Your task to perform on an android device: empty trash in google photos Image 0: 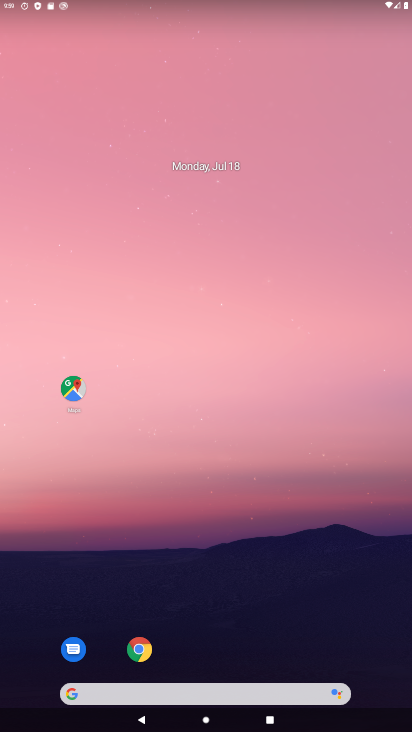
Step 0: drag from (52, 589) to (224, 180)
Your task to perform on an android device: empty trash in google photos Image 1: 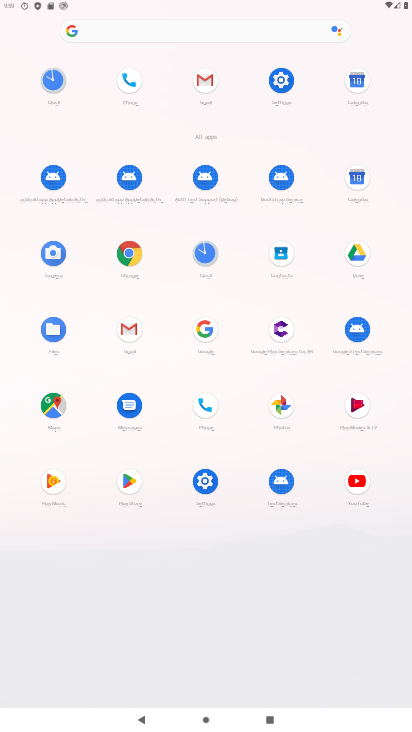
Step 1: click (267, 406)
Your task to perform on an android device: empty trash in google photos Image 2: 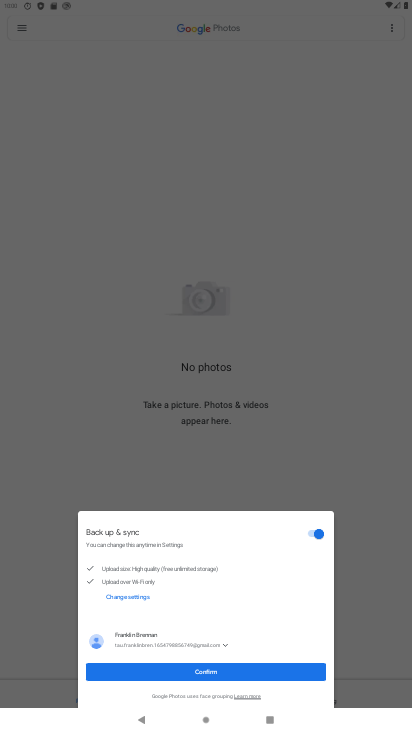
Step 2: click (264, 668)
Your task to perform on an android device: empty trash in google photos Image 3: 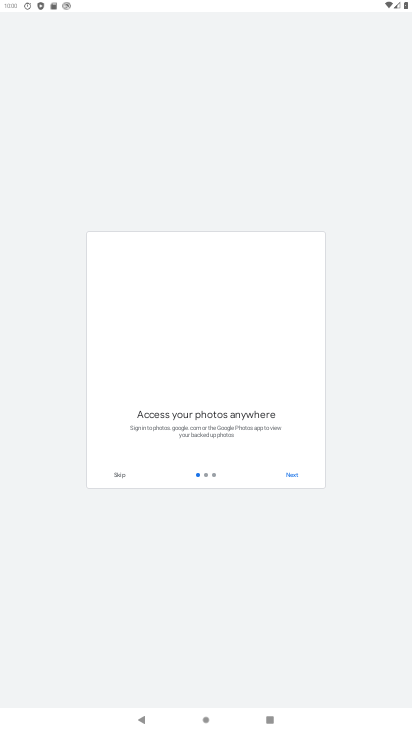
Step 3: press back button
Your task to perform on an android device: empty trash in google photos Image 4: 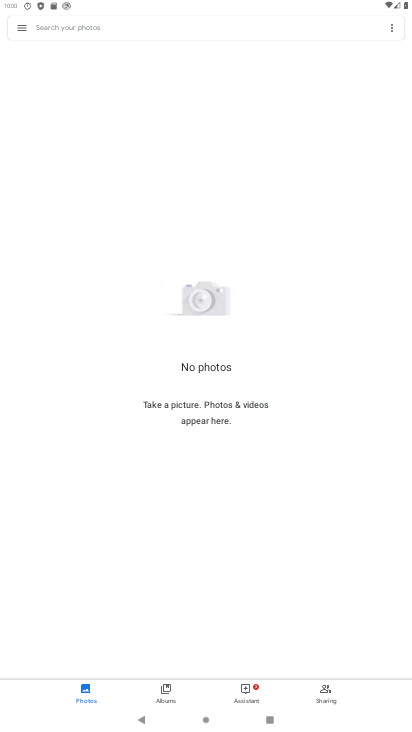
Step 4: click (24, 25)
Your task to perform on an android device: empty trash in google photos Image 5: 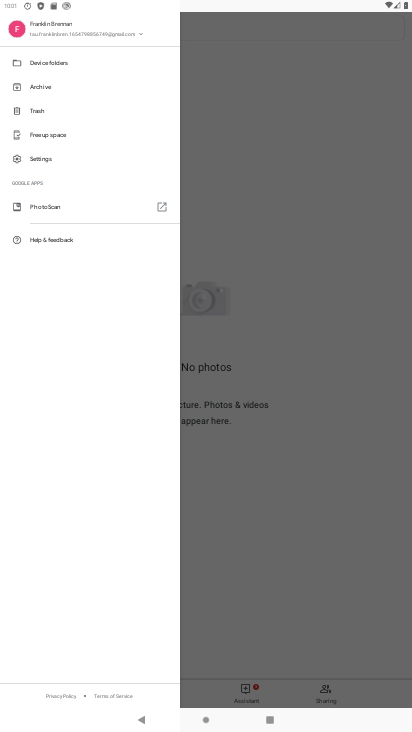
Step 5: click (39, 106)
Your task to perform on an android device: empty trash in google photos Image 6: 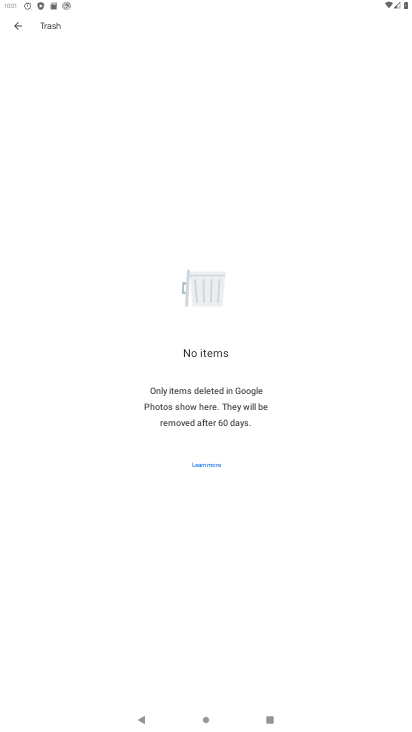
Step 6: task complete